Your task to perform on an android device: Open the stopwatch Image 0: 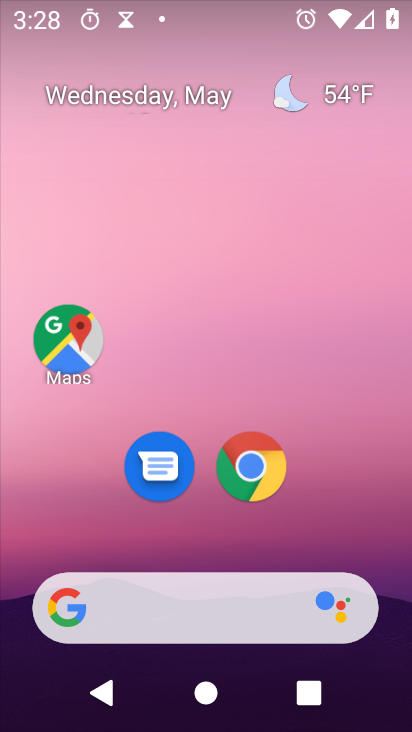
Step 0: drag from (374, 519) to (315, 160)
Your task to perform on an android device: Open the stopwatch Image 1: 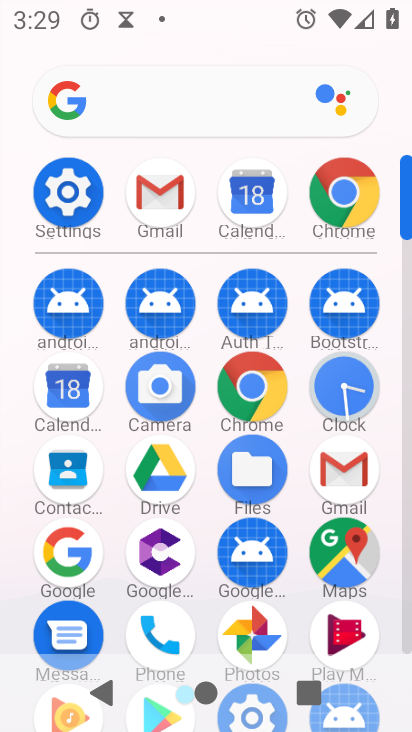
Step 1: click (373, 386)
Your task to perform on an android device: Open the stopwatch Image 2: 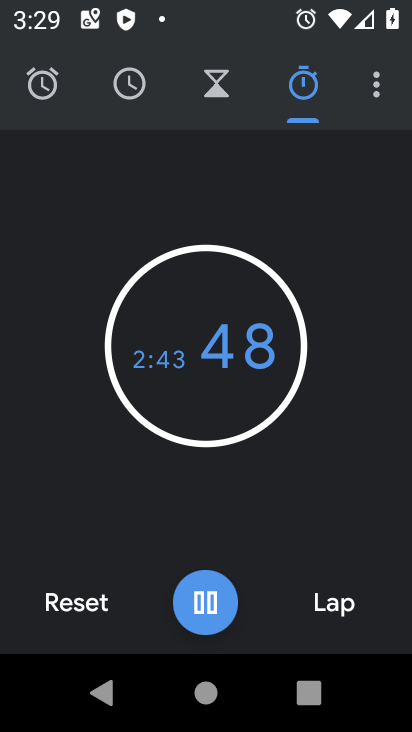
Step 2: task complete